Your task to perform on an android device: check google app version Image 0: 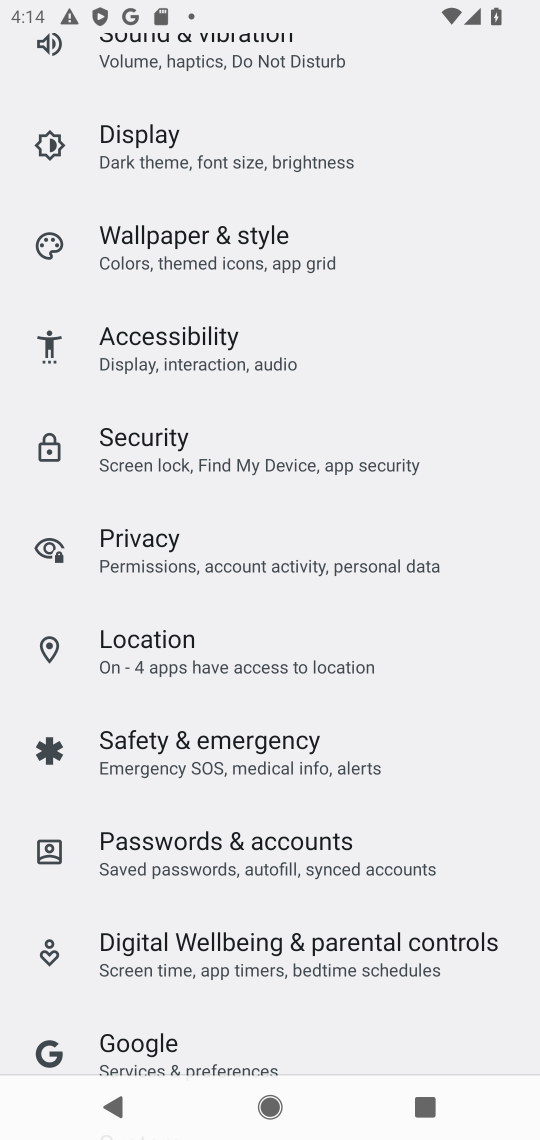
Step 0: press home button
Your task to perform on an android device: check google app version Image 1: 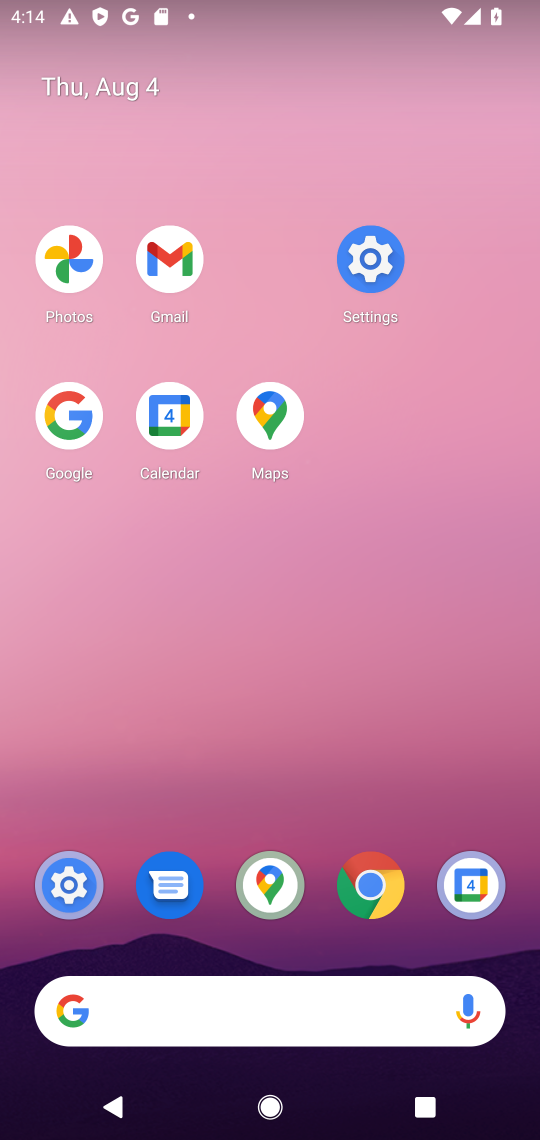
Step 1: click (53, 423)
Your task to perform on an android device: check google app version Image 2: 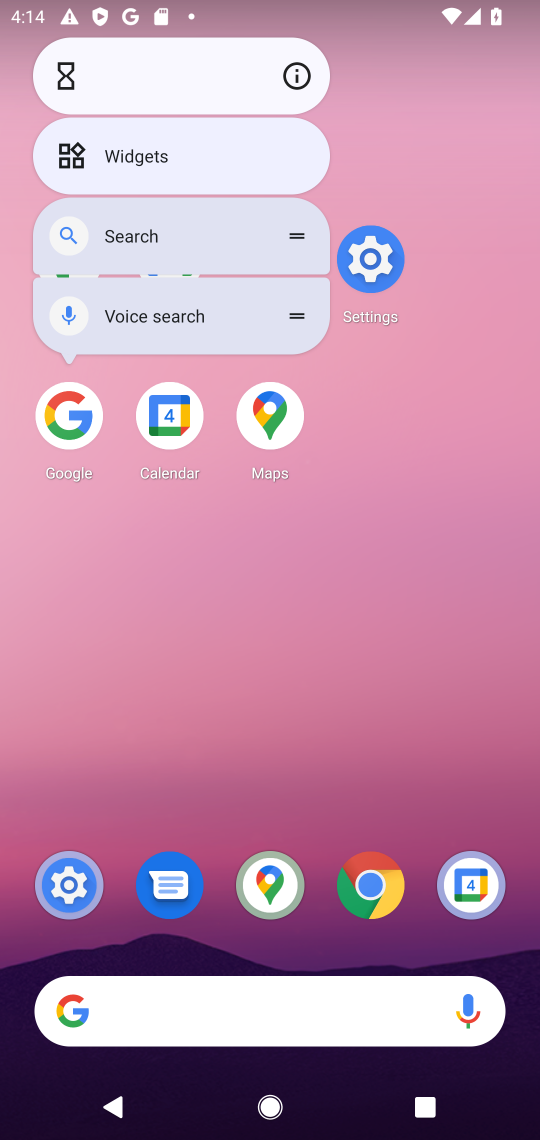
Step 2: click (307, 81)
Your task to perform on an android device: check google app version Image 3: 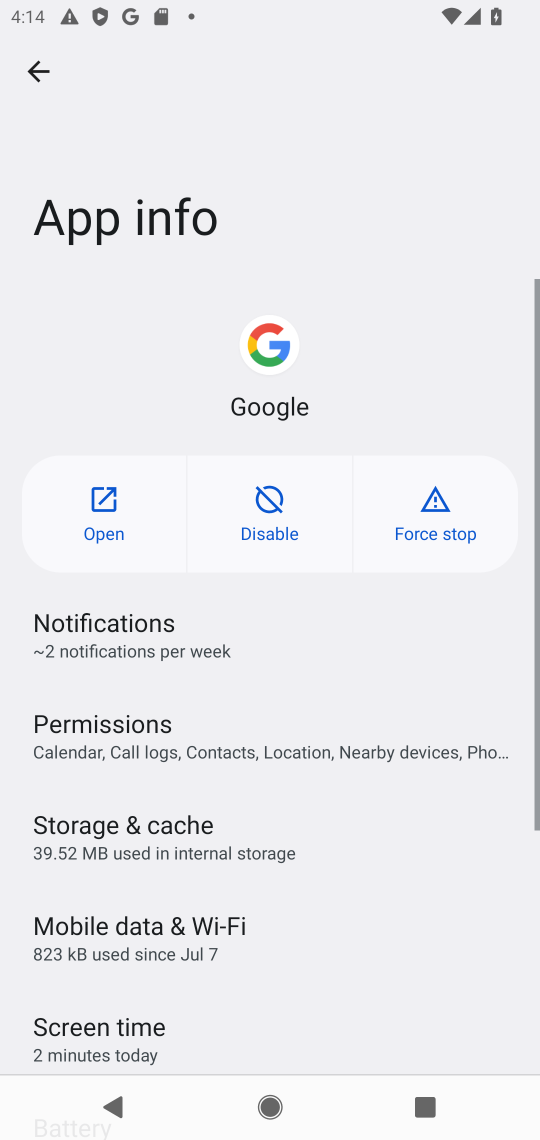
Step 3: task complete